Your task to perform on an android device: turn on location history Image 0: 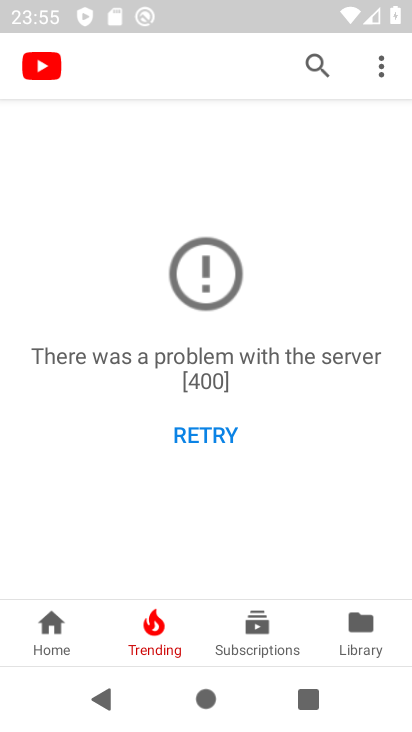
Step 0: press home button
Your task to perform on an android device: turn on location history Image 1: 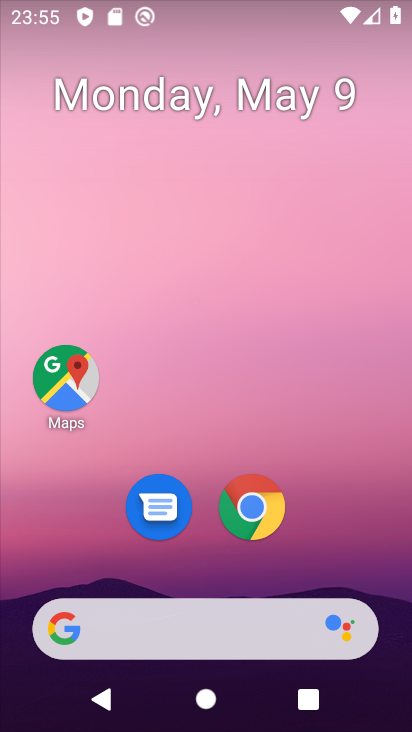
Step 1: drag from (360, 540) to (313, 218)
Your task to perform on an android device: turn on location history Image 2: 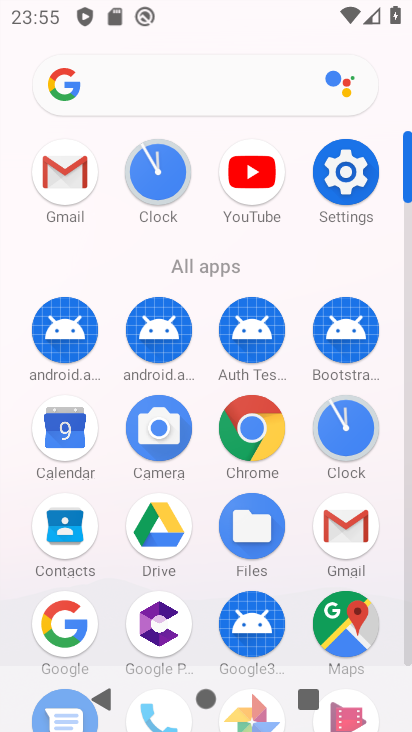
Step 2: click (355, 192)
Your task to perform on an android device: turn on location history Image 3: 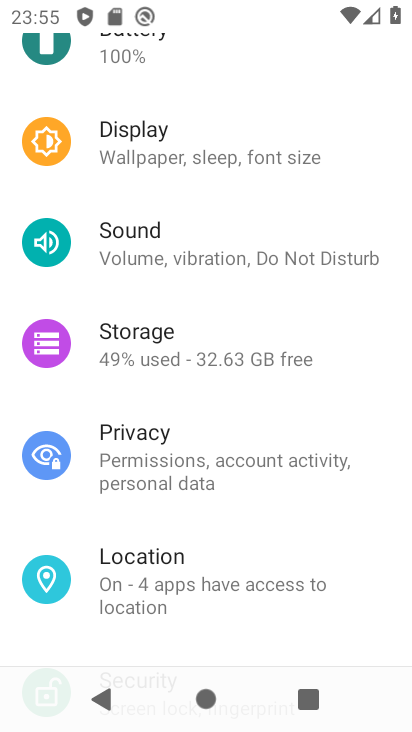
Step 3: click (210, 557)
Your task to perform on an android device: turn on location history Image 4: 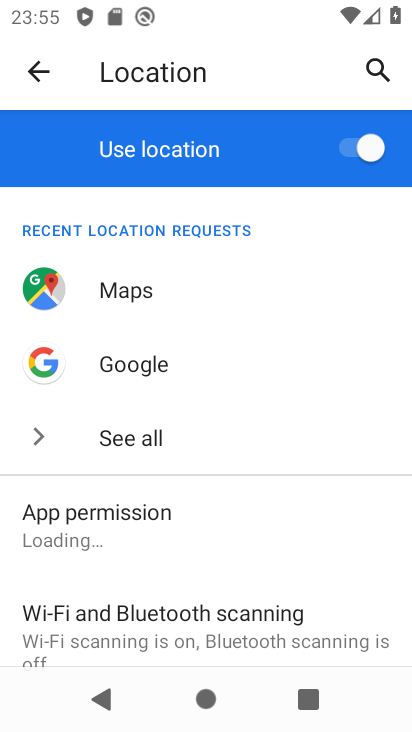
Step 4: drag from (210, 555) to (191, 421)
Your task to perform on an android device: turn on location history Image 5: 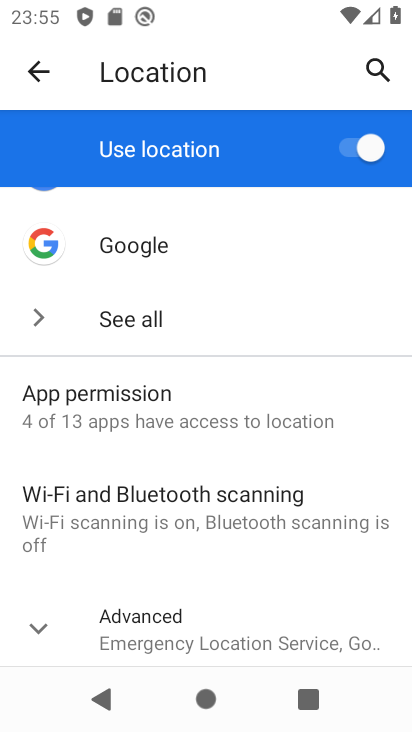
Step 5: click (166, 619)
Your task to perform on an android device: turn on location history Image 6: 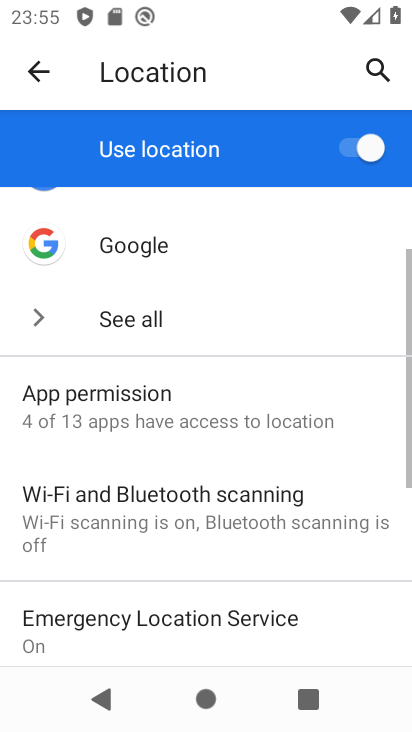
Step 6: drag from (166, 619) to (148, 494)
Your task to perform on an android device: turn on location history Image 7: 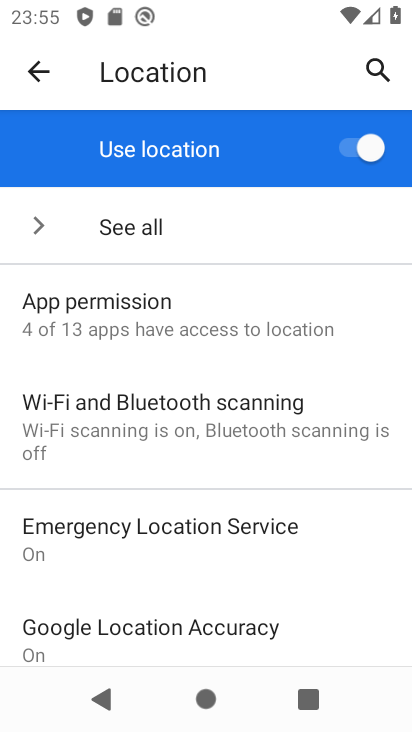
Step 7: drag from (138, 565) to (122, 464)
Your task to perform on an android device: turn on location history Image 8: 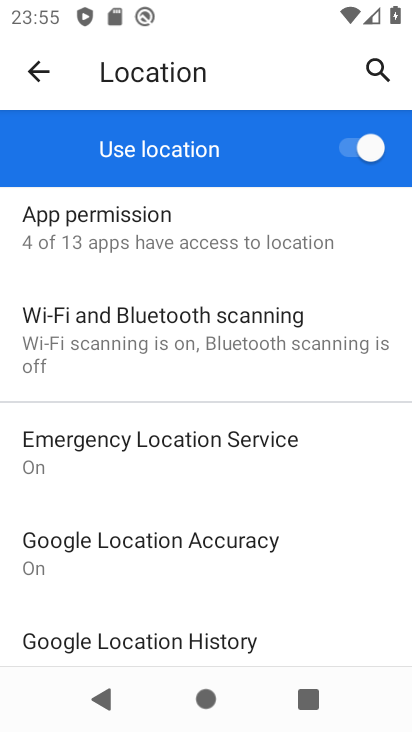
Step 8: click (129, 640)
Your task to perform on an android device: turn on location history Image 9: 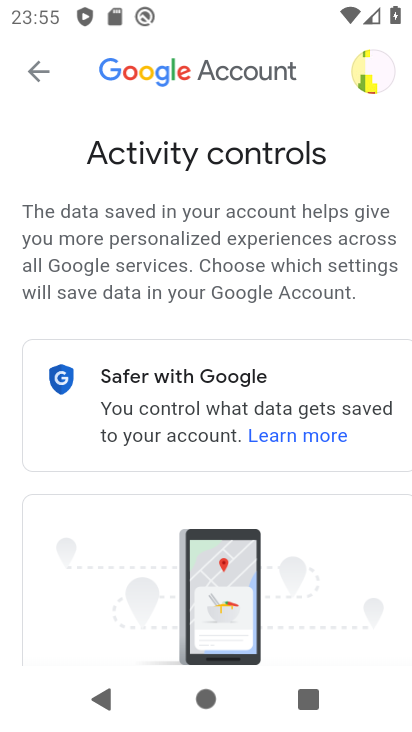
Step 9: drag from (197, 620) to (166, 354)
Your task to perform on an android device: turn on location history Image 10: 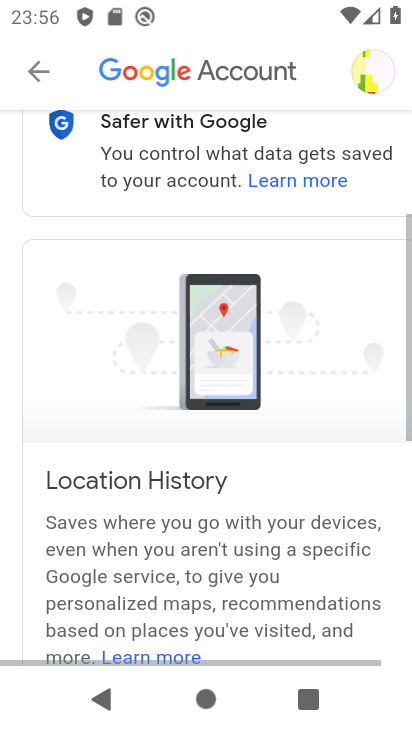
Step 10: drag from (185, 589) to (150, 293)
Your task to perform on an android device: turn on location history Image 11: 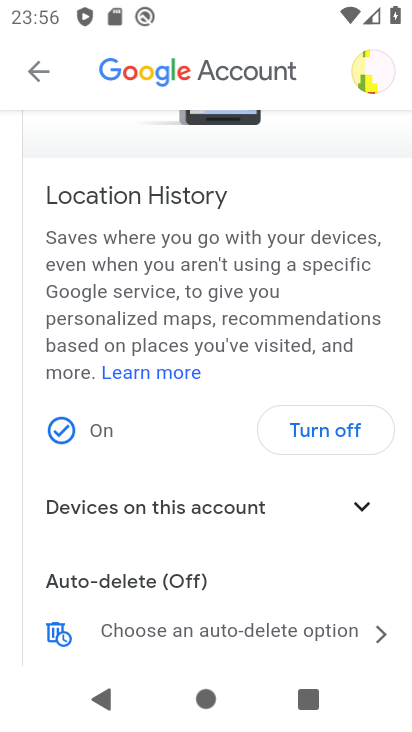
Step 11: click (150, 293)
Your task to perform on an android device: turn on location history Image 12: 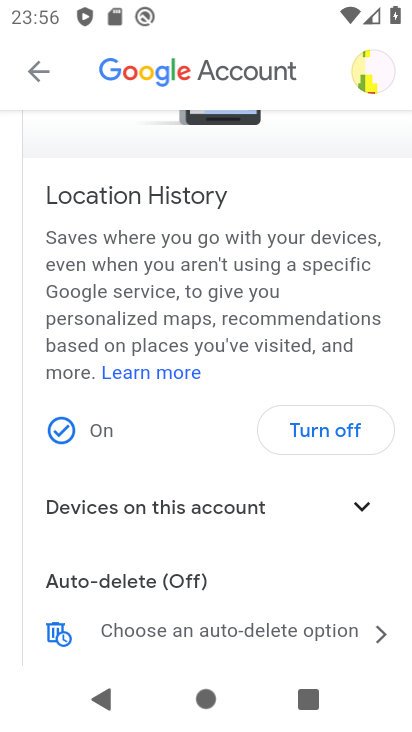
Step 12: task complete